Your task to perform on an android device: allow cookies in the chrome app Image 0: 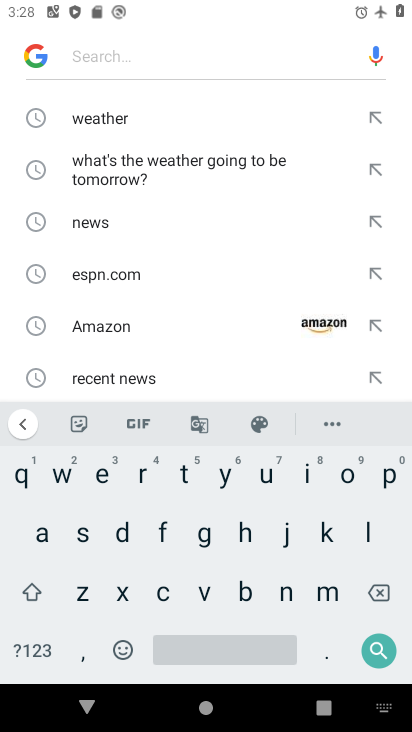
Step 0: press home button
Your task to perform on an android device: allow cookies in the chrome app Image 1: 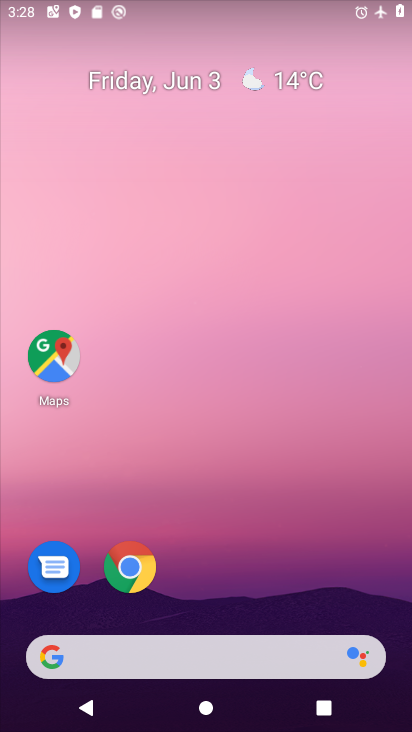
Step 1: drag from (250, 659) to (239, 107)
Your task to perform on an android device: allow cookies in the chrome app Image 2: 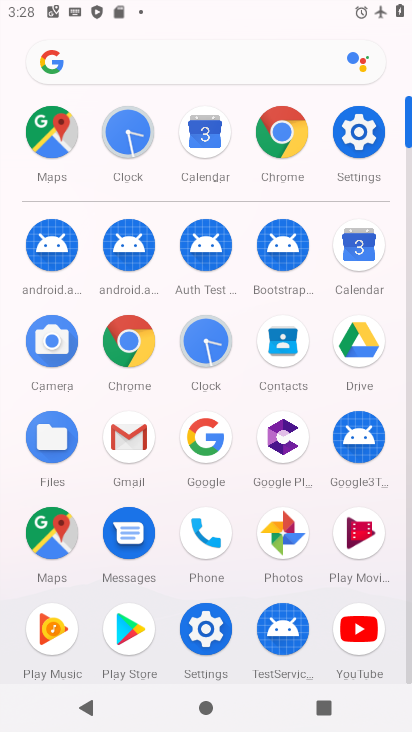
Step 2: click (281, 123)
Your task to perform on an android device: allow cookies in the chrome app Image 3: 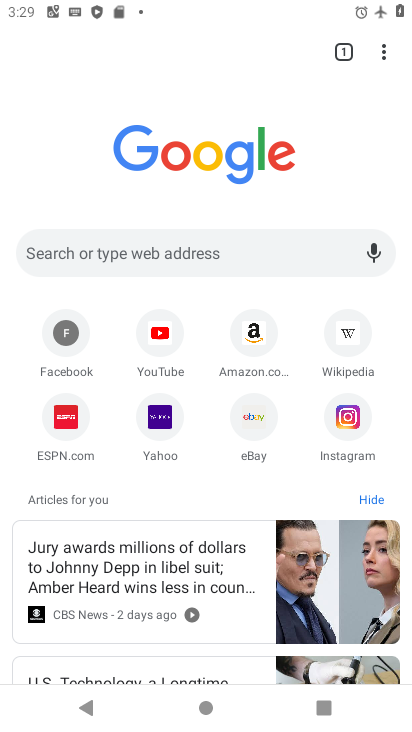
Step 3: click (384, 63)
Your task to perform on an android device: allow cookies in the chrome app Image 4: 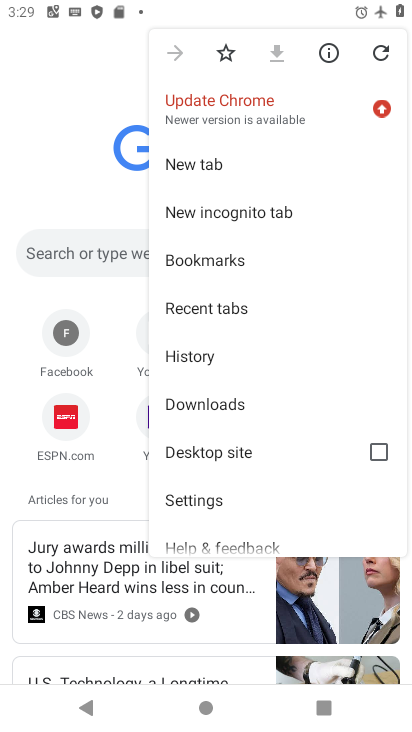
Step 4: click (185, 493)
Your task to perform on an android device: allow cookies in the chrome app Image 5: 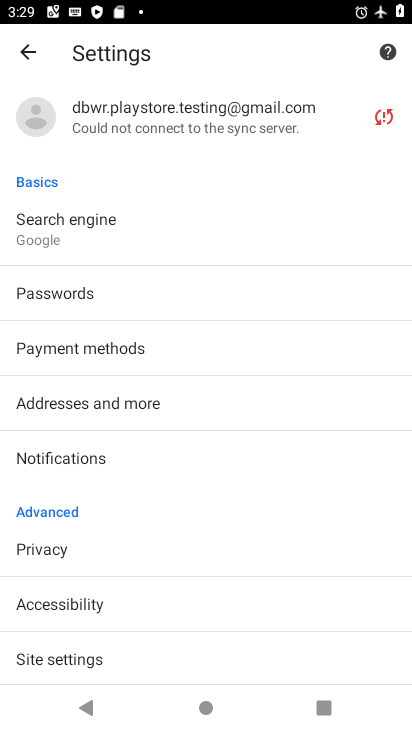
Step 5: click (86, 645)
Your task to perform on an android device: allow cookies in the chrome app Image 6: 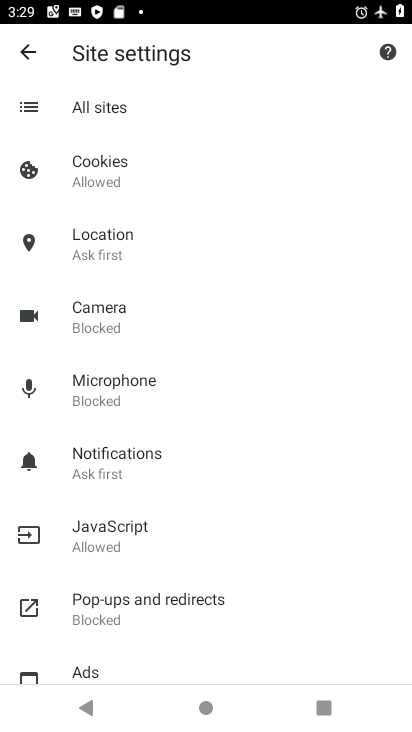
Step 6: click (145, 178)
Your task to perform on an android device: allow cookies in the chrome app Image 7: 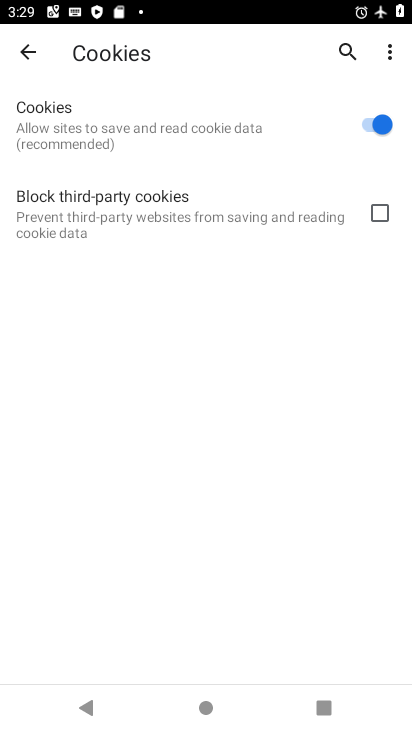
Step 7: click (379, 109)
Your task to perform on an android device: allow cookies in the chrome app Image 8: 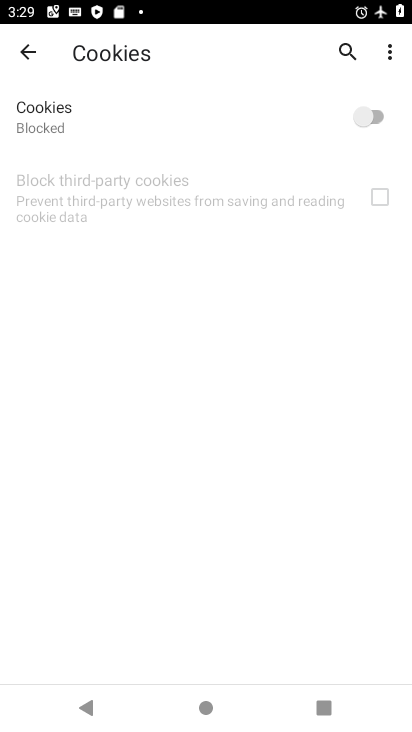
Step 8: click (372, 126)
Your task to perform on an android device: allow cookies in the chrome app Image 9: 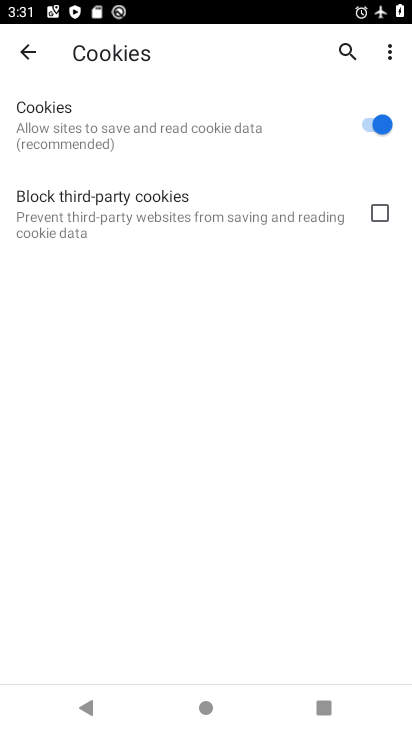
Step 9: task complete